Your task to perform on an android device: allow cookies in the chrome app Image 0: 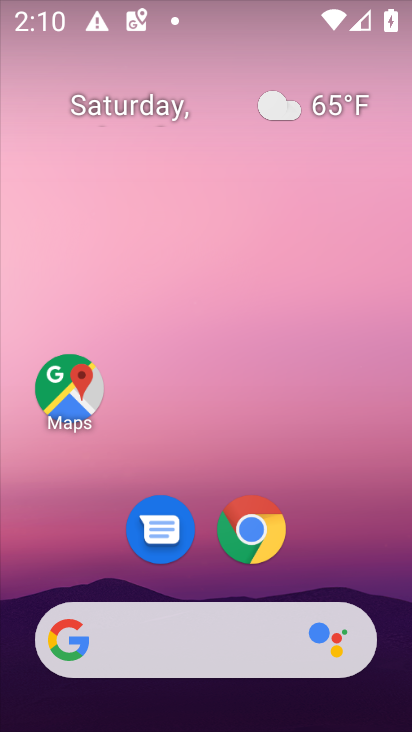
Step 0: click (269, 518)
Your task to perform on an android device: allow cookies in the chrome app Image 1: 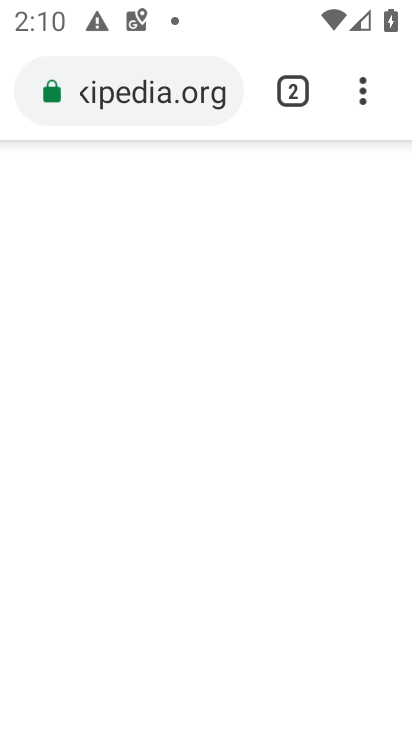
Step 1: click (367, 83)
Your task to perform on an android device: allow cookies in the chrome app Image 2: 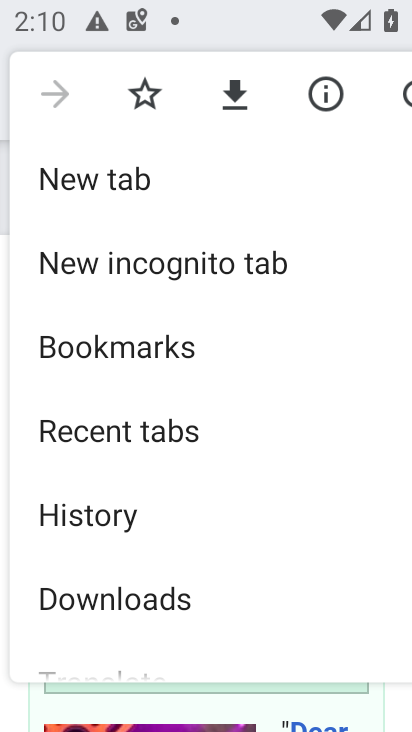
Step 2: drag from (331, 645) to (214, 95)
Your task to perform on an android device: allow cookies in the chrome app Image 3: 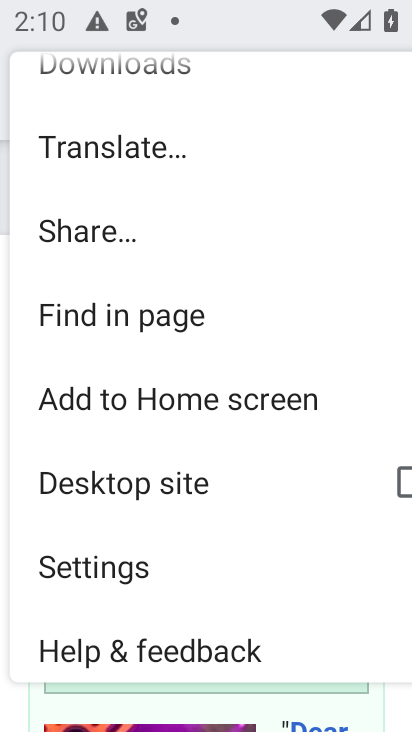
Step 3: click (238, 561)
Your task to perform on an android device: allow cookies in the chrome app Image 4: 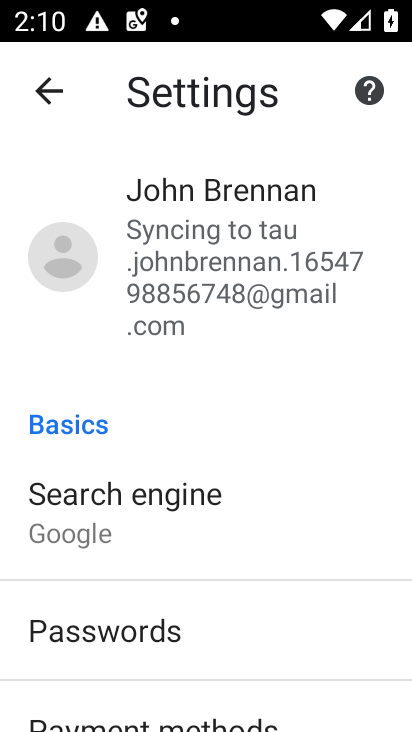
Step 4: drag from (287, 671) to (211, 99)
Your task to perform on an android device: allow cookies in the chrome app Image 5: 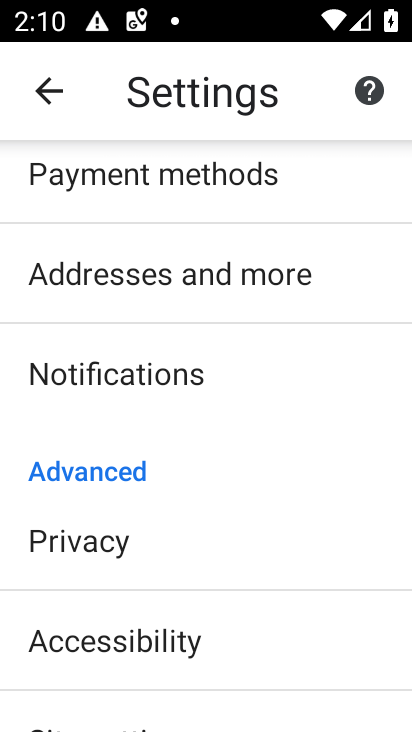
Step 5: drag from (257, 592) to (189, 40)
Your task to perform on an android device: allow cookies in the chrome app Image 6: 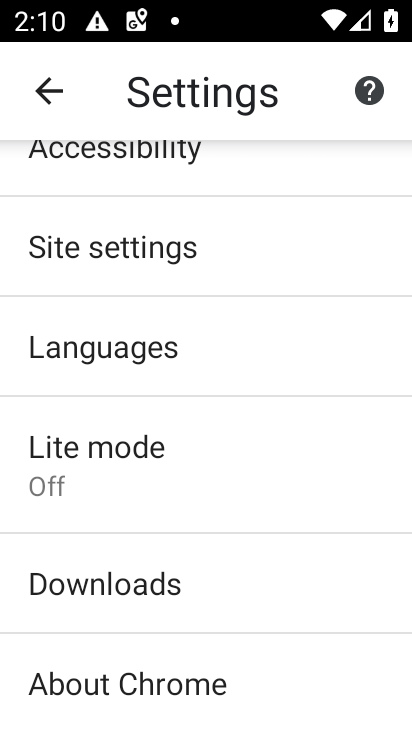
Step 6: click (175, 241)
Your task to perform on an android device: allow cookies in the chrome app Image 7: 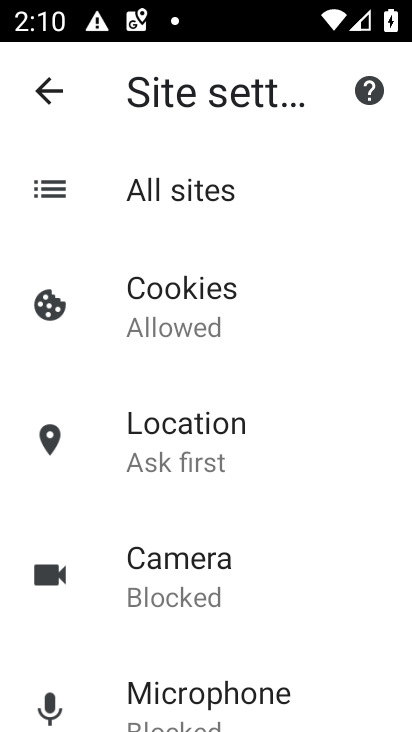
Step 7: click (202, 304)
Your task to perform on an android device: allow cookies in the chrome app Image 8: 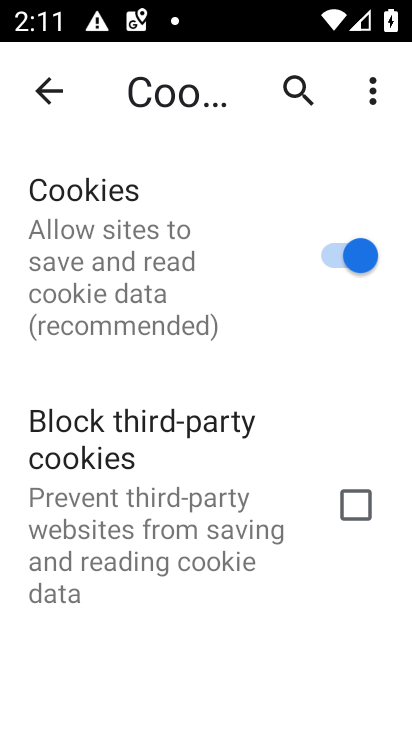
Step 8: task complete